Your task to perform on an android device: add a label to a message in the gmail app Image 0: 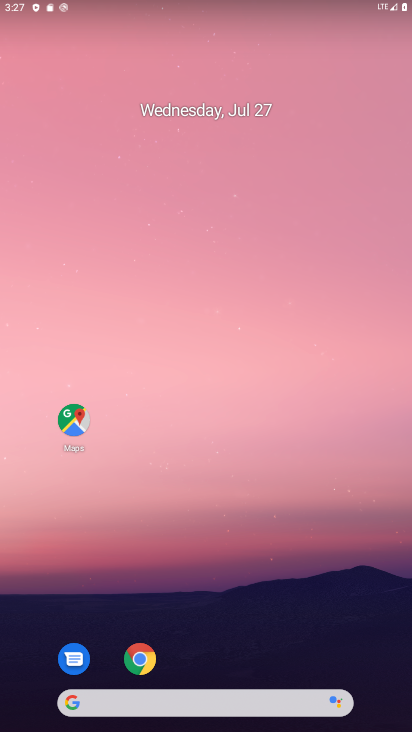
Step 0: drag from (245, 521) to (224, 34)
Your task to perform on an android device: add a label to a message in the gmail app Image 1: 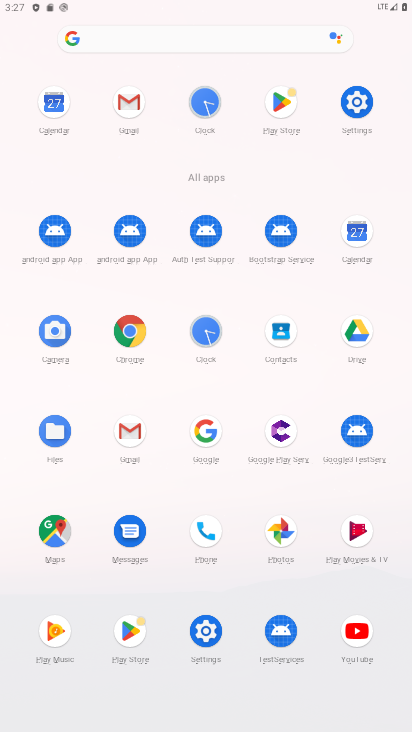
Step 1: click (136, 106)
Your task to perform on an android device: add a label to a message in the gmail app Image 2: 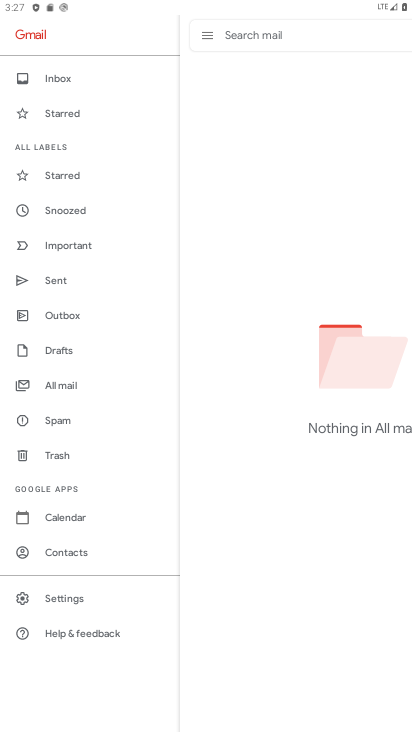
Step 2: click (72, 387)
Your task to perform on an android device: add a label to a message in the gmail app Image 3: 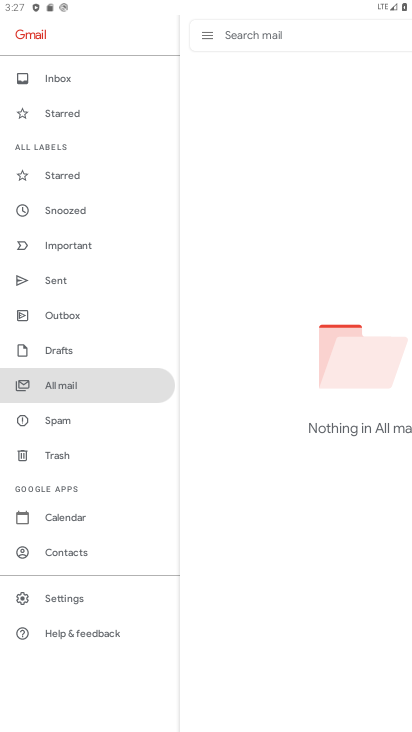
Step 3: click (49, 387)
Your task to perform on an android device: add a label to a message in the gmail app Image 4: 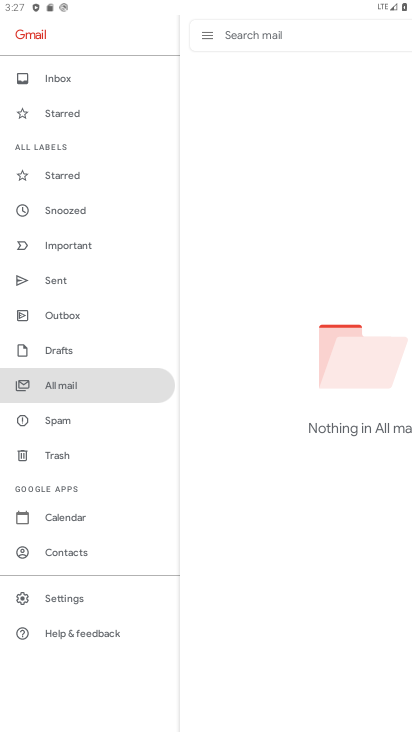
Step 4: task complete